Your task to perform on an android device: see tabs open on other devices in the chrome app Image 0: 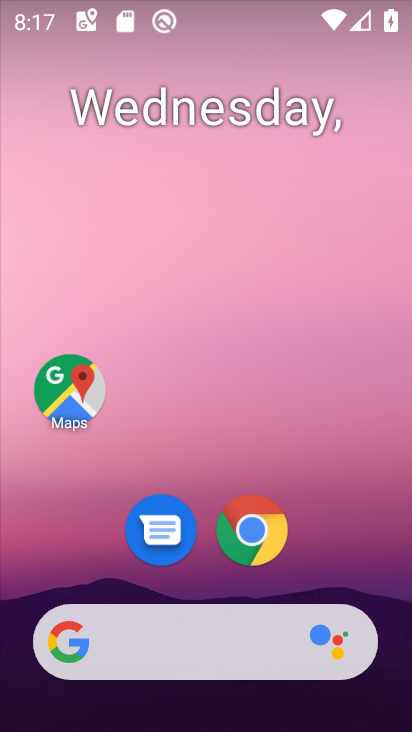
Step 0: drag from (400, 625) to (214, 15)
Your task to perform on an android device: see tabs open on other devices in the chrome app Image 1: 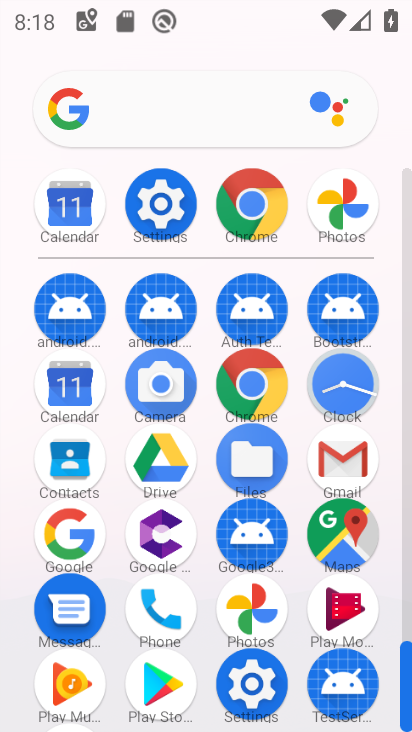
Step 1: click (256, 383)
Your task to perform on an android device: see tabs open on other devices in the chrome app Image 2: 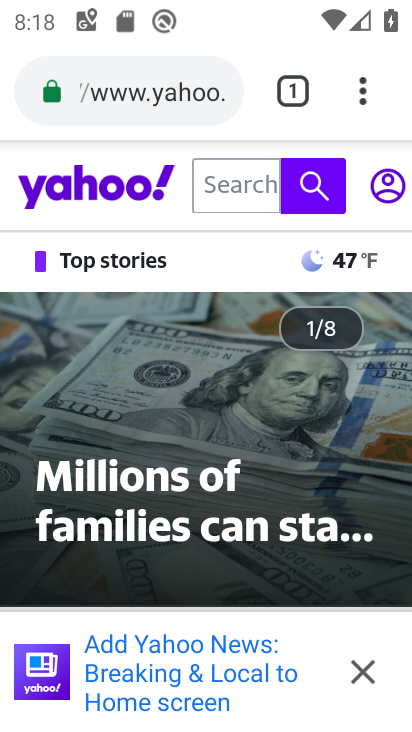
Step 2: task complete